Your task to perform on an android device: check data usage Image 0: 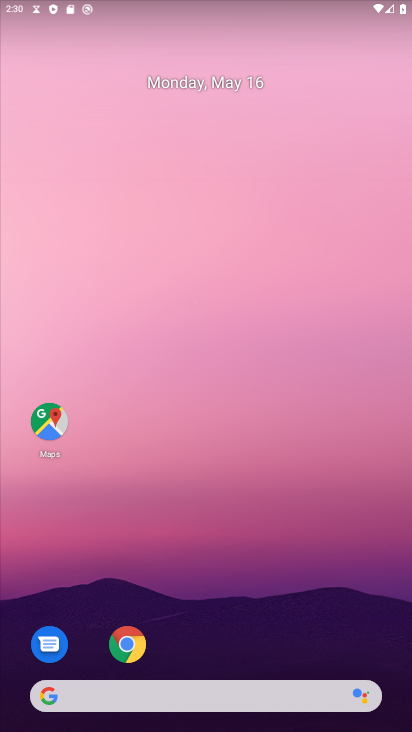
Step 0: drag from (239, 638) to (276, 222)
Your task to perform on an android device: check data usage Image 1: 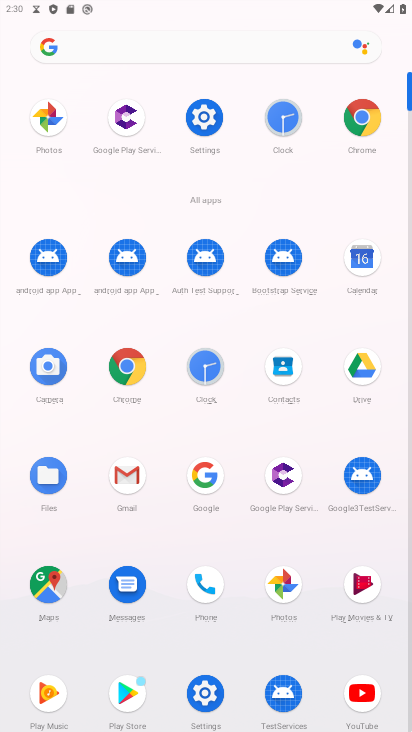
Step 1: click (200, 125)
Your task to perform on an android device: check data usage Image 2: 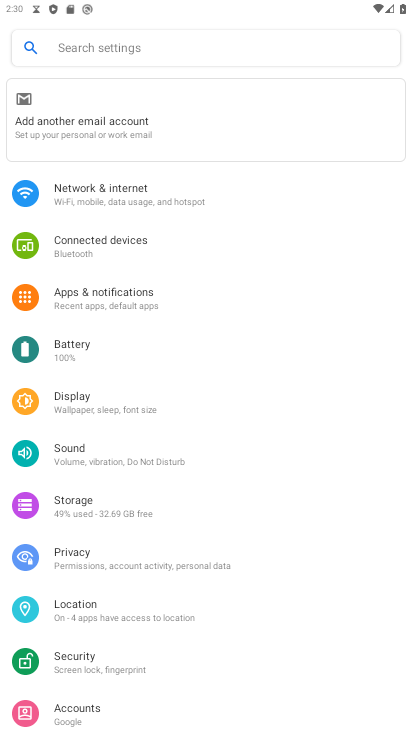
Step 2: click (105, 197)
Your task to perform on an android device: check data usage Image 3: 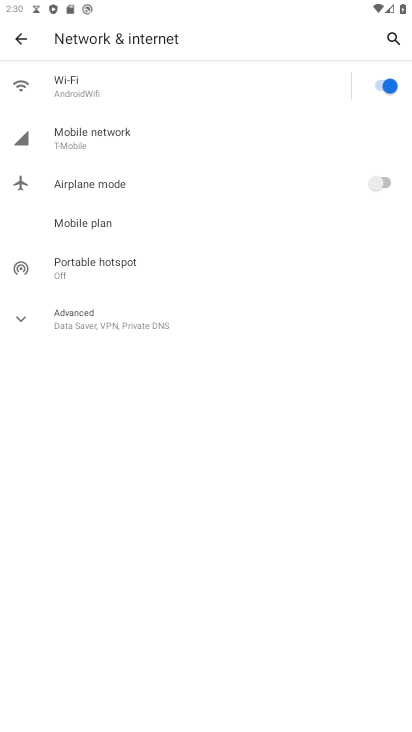
Step 3: click (118, 152)
Your task to perform on an android device: check data usage Image 4: 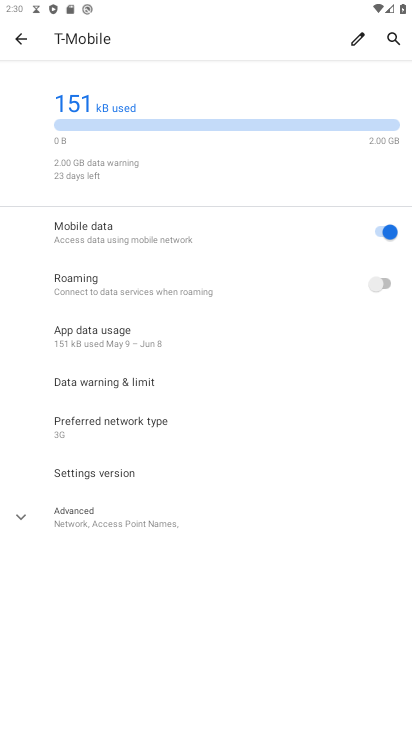
Step 4: click (137, 337)
Your task to perform on an android device: check data usage Image 5: 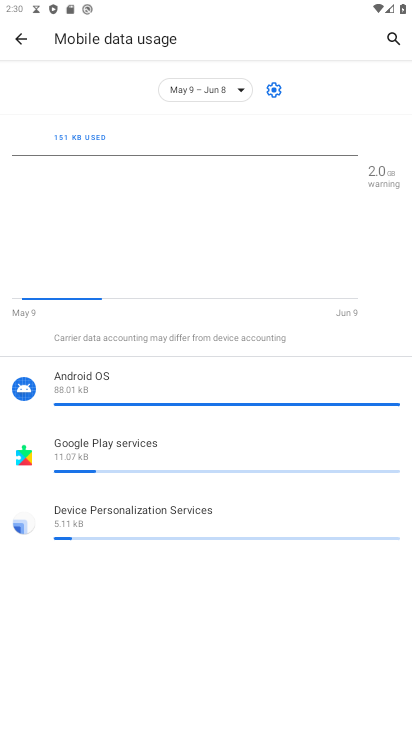
Step 5: task complete